Your task to perform on an android device: Do I have any events tomorrow? Image 0: 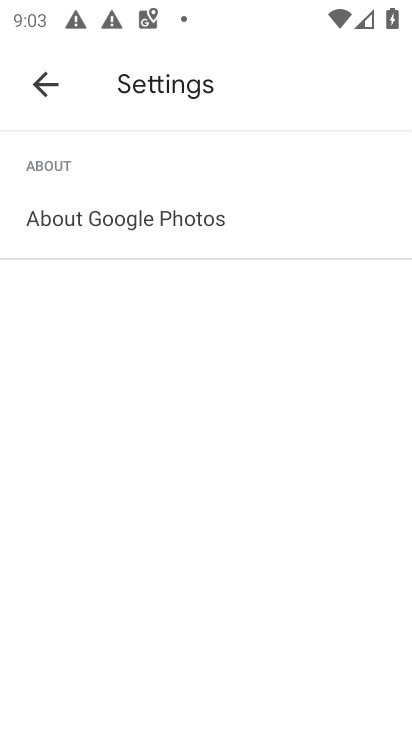
Step 0: press home button
Your task to perform on an android device: Do I have any events tomorrow? Image 1: 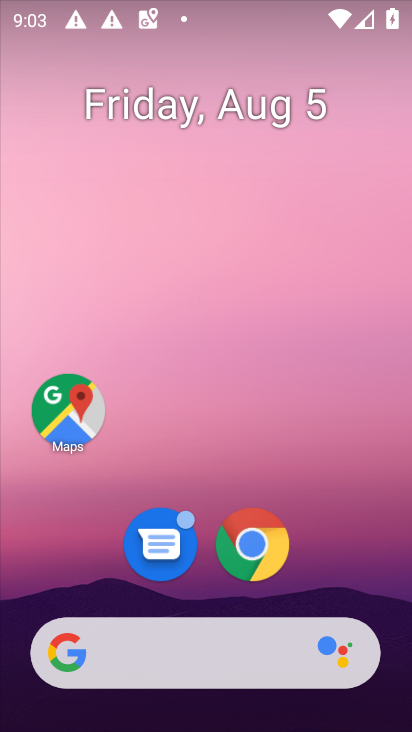
Step 1: drag from (324, 433) to (148, 3)
Your task to perform on an android device: Do I have any events tomorrow? Image 2: 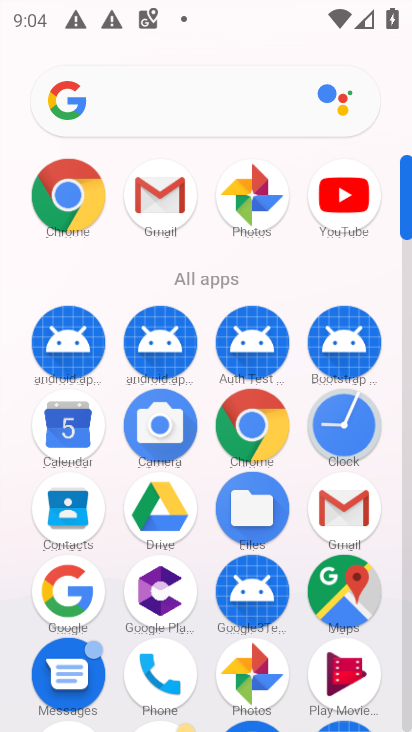
Step 2: click (63, 416)
Your task to perform on an android device: Do I have any events tomorrow? Image 3: 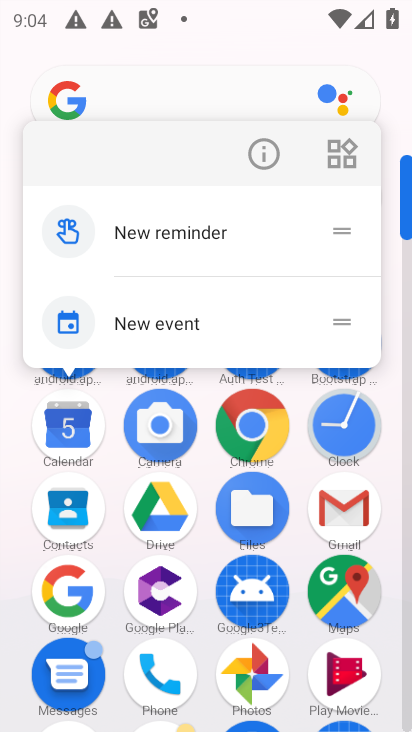
Step 3: click (62, 415)
Your task to perform on an android device: Do I have any events tomorrow? Image 4: 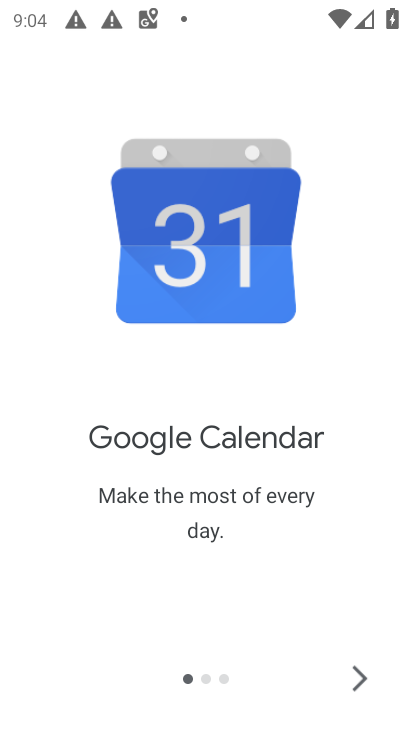
Step 4: click (353, 675)
Your task to perform on an android device: Do I have any events tomorrow? Image 5: 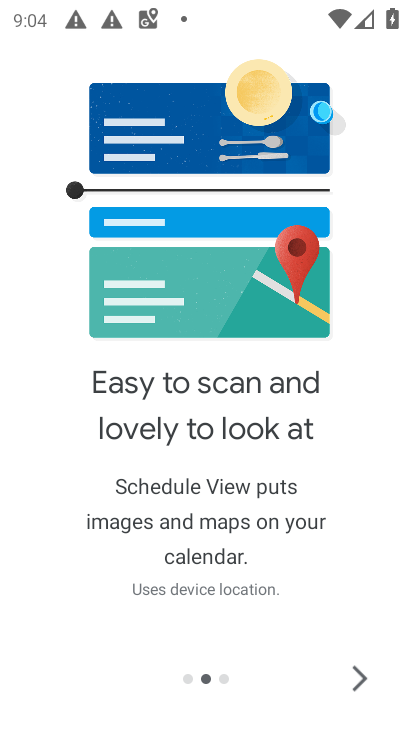
Step 5: click (367, 682)
Your task to perform on an android device: Do I have any events tomorrow? Image 6: 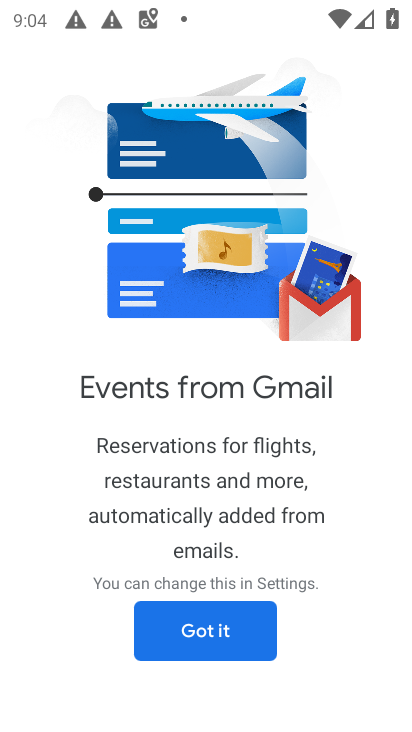
Step 6: click (207, 636)
Your task to perform on an android device: Do I have any events tomorrow? Image 7: 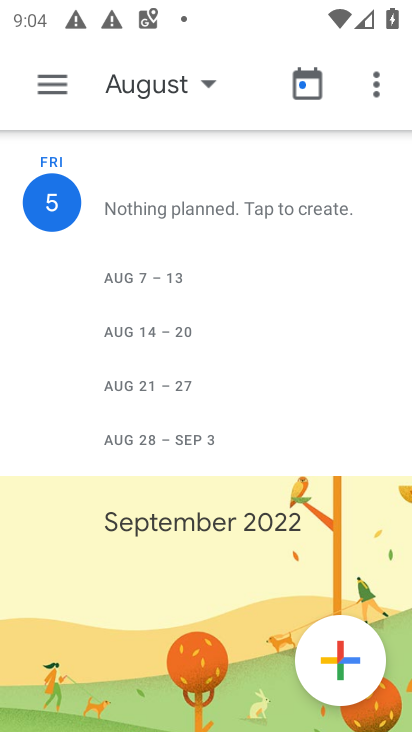
Step 7: click (192, 95)
Your task to perform on an android device: Do I have any events tomorrow? Image 8: 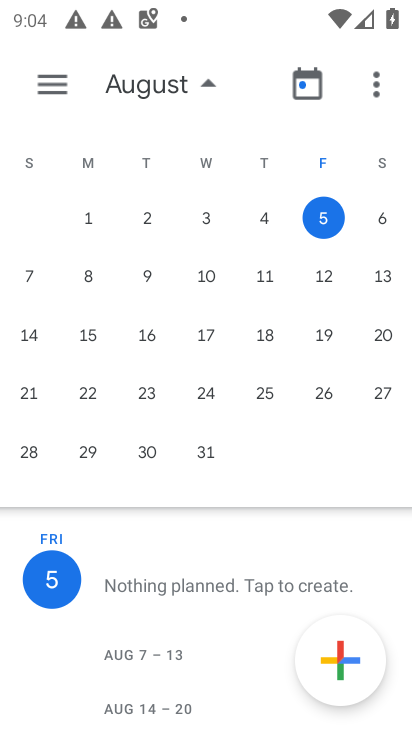
Step 8: click (377, 227)
Your task to perform on an android device: Do I have any events tomorrow? Image 9: 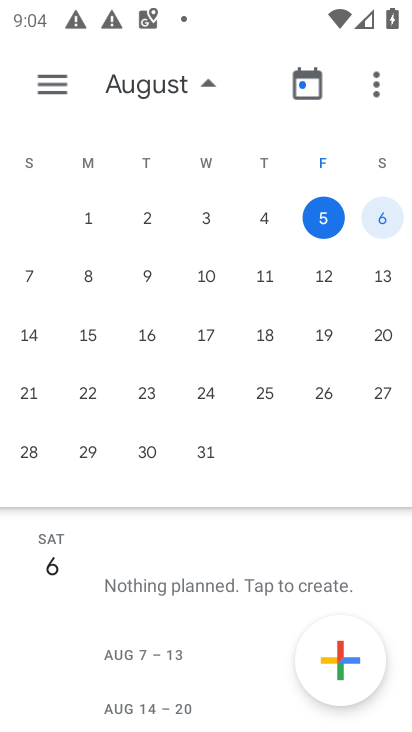
Step 9: task complete